Your task to perform on an android device: Open Amazon Image 0: 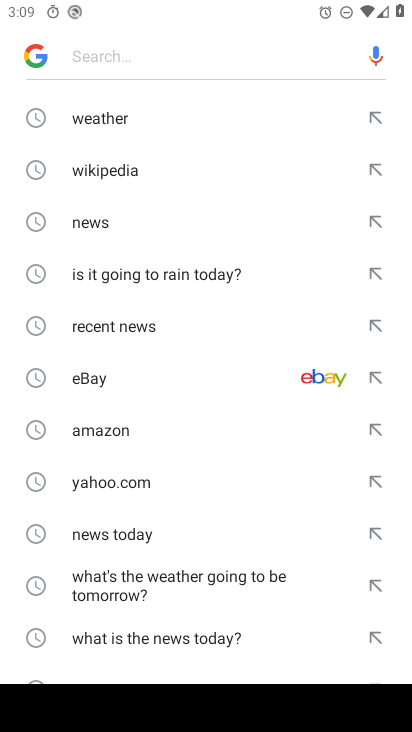
Step 0: press home button
Your task to perform on an android device: Open Amazon Image 1: 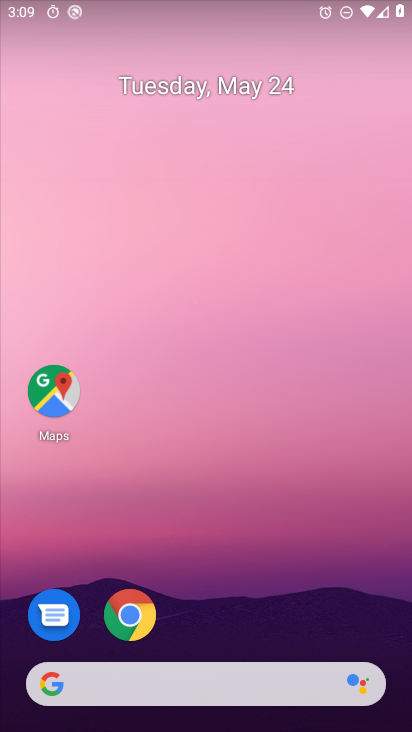
Step 1: drag from (178, 645) to (145, 250)
Your task to perform on an android device: Open Amazon Image 2: 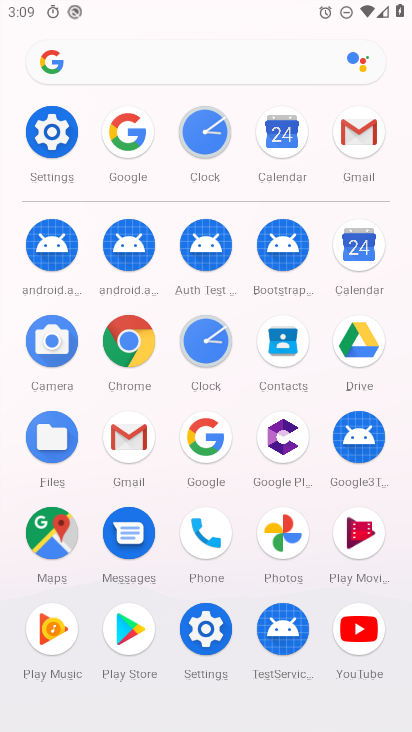
Step 2: click (138, 345)
Your task to perform on an android device: Open Amazon Image 3: 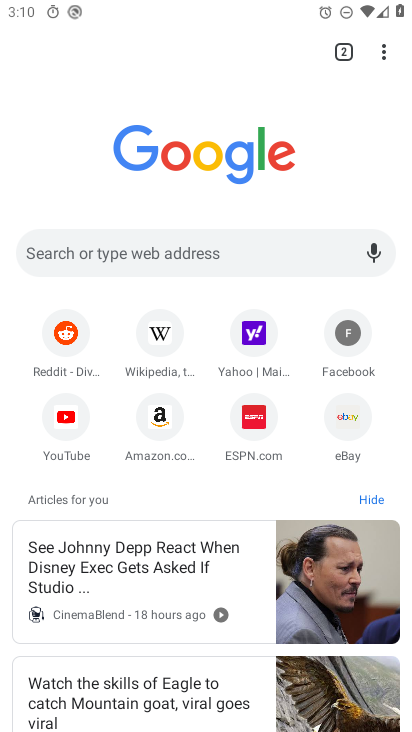
Step 3: click (174, 421)
Your task to perform on an android device: Open Amazon Image 4: 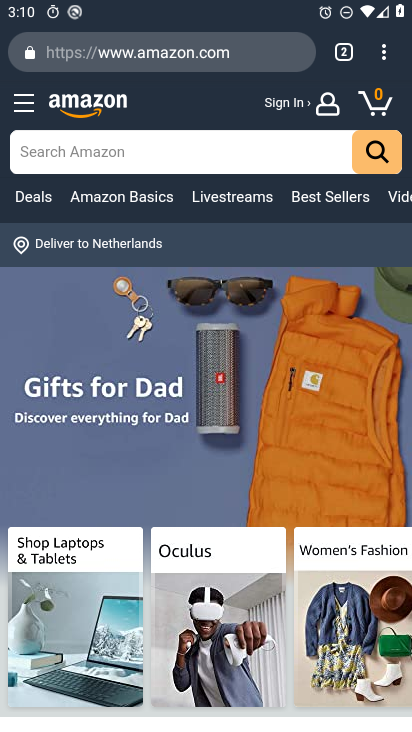
Step 4: task complete